Your task to perform on an android device: Open Yahoo.com Image 0: 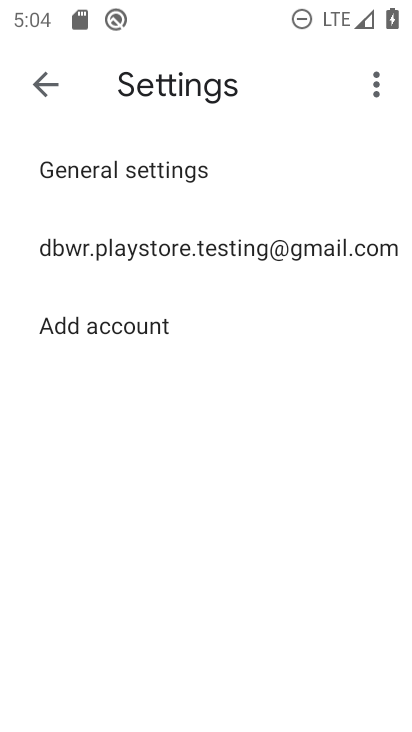
Step 0: click (48, 91)
Your task to perform on an android device: Open Yahoo.com Image 1: 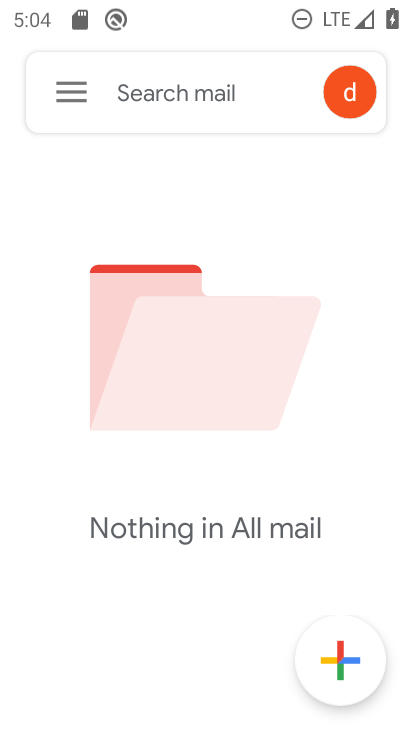
Step 1: press home button
Your task to perform on an android device: Open Yahoo.com Image 2: 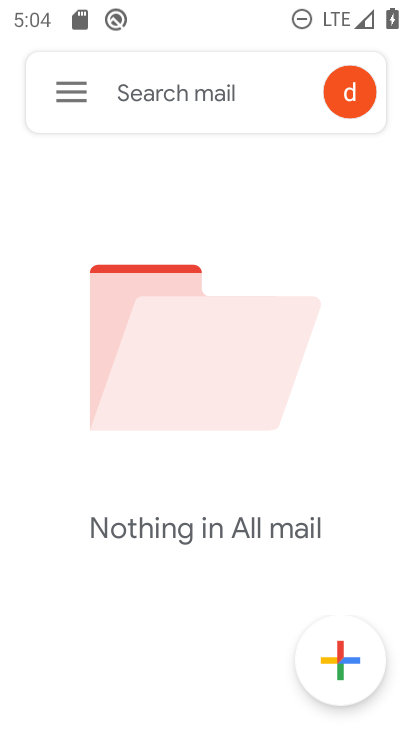
Step 2: press home button
Your task to perform on an android device: Open Yahoo.com Image 3: 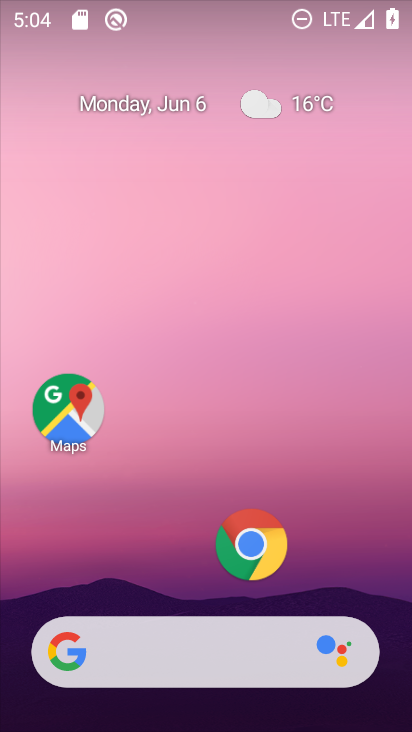
Step 3: press home button
Your task to perform on an android device: Open Yahoo.com Image 4: 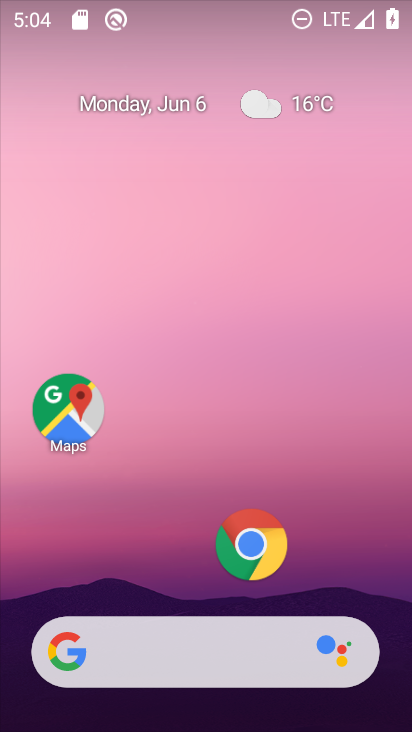
Step 4: click (250, 541)
Your task to perform on an android device: Open Yahoo.com Image 5: 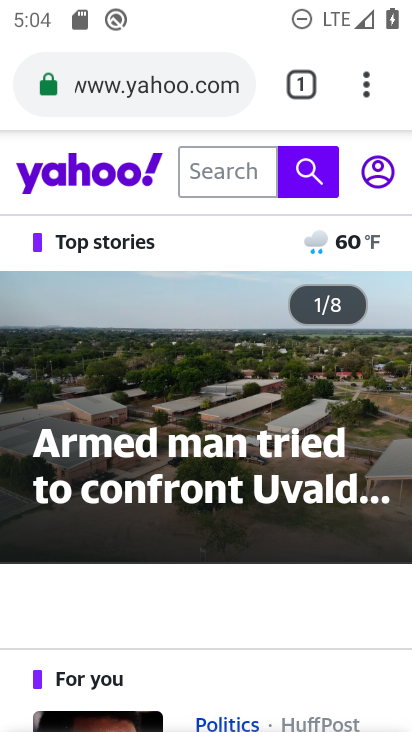
Step 5: task complete